Your task to perform on an android device: Open the stopwatch Image 0: 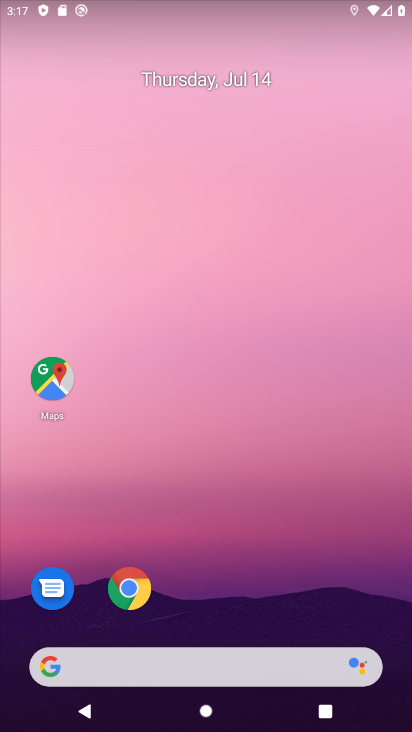
Step 0: drag from (168, 664) to (216, 177)
Your task to perform on an android device: Open the stopwatch Image 1: 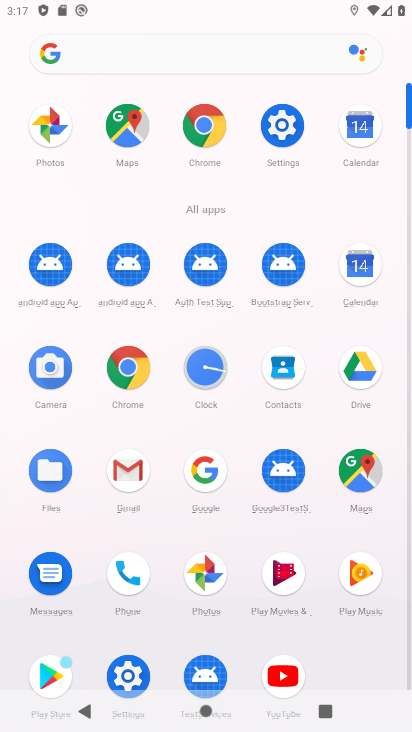
Step 1: click (204, 367)
Your task to perform on an android device: Open the stopwatch Image 2: 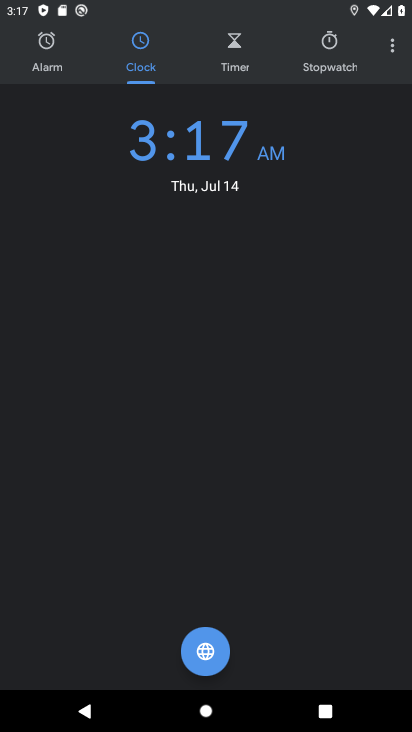
Step 2: click (330, 42)
Your task to perform on an android device: Open the stopwatch Image 3: 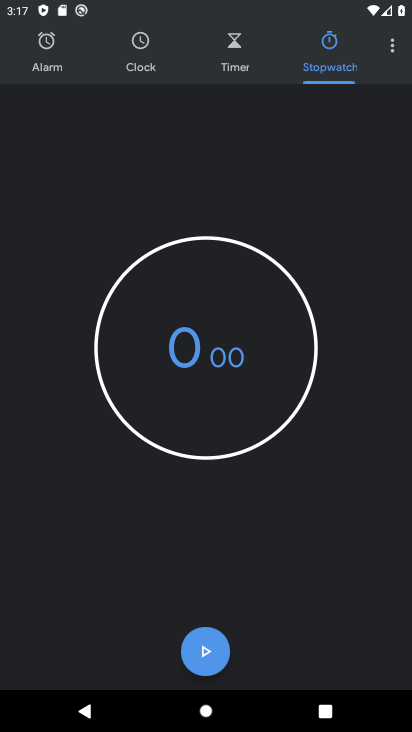
Step 3: click (207, 354)
Your task to perform on an android device: Open the stopwatch Image 4: 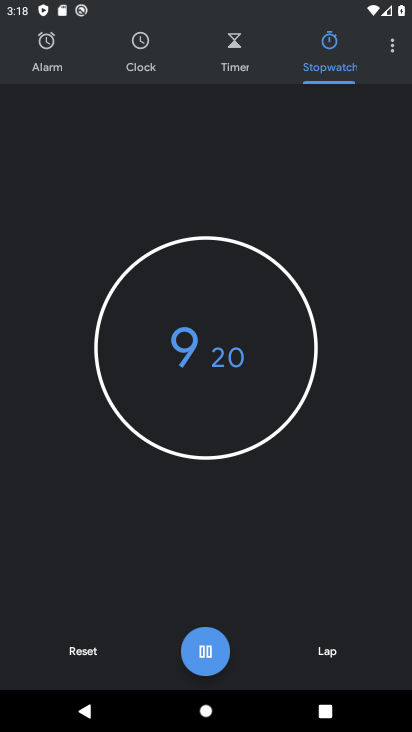
Step 4: click (207, 354)
Your task to perform on an android device: Open the stopwatch Image 5: 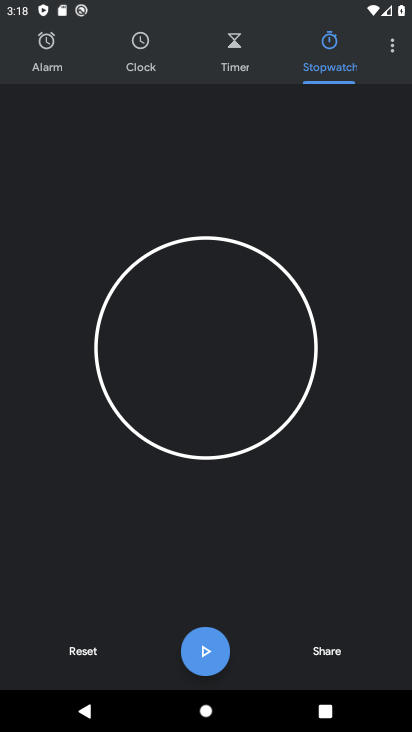
Step 5: task complete